Your task to perform on an android device: Go to settings Image 0: 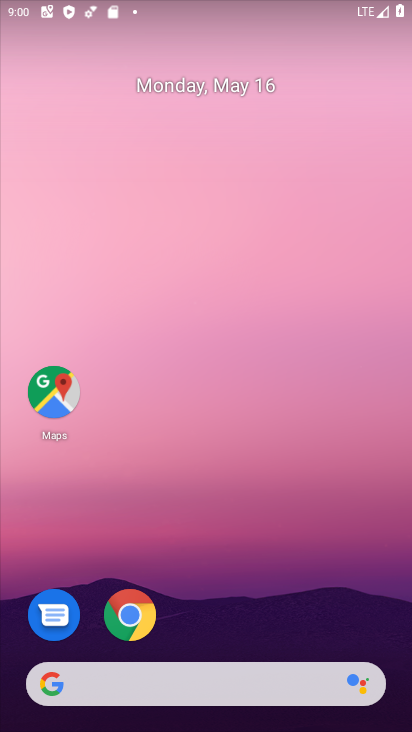
Step 0: drag from (232, 689) to (243, 224)
Your task to perform on an android device: Go to settings Image 1: 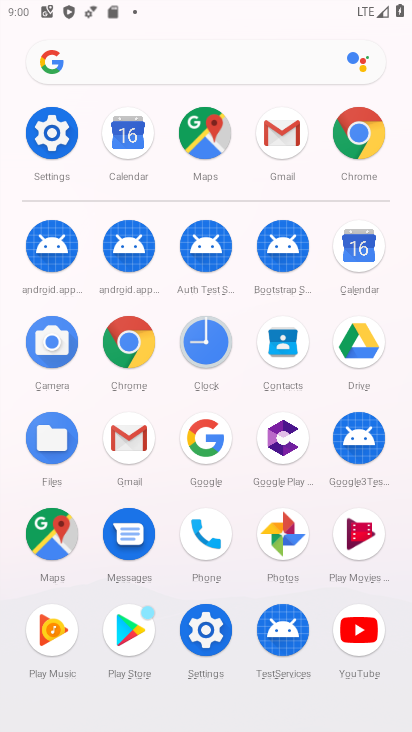
Step 1: click (49, 153)
Your task to perform on an android device: Go to settings Image 2: 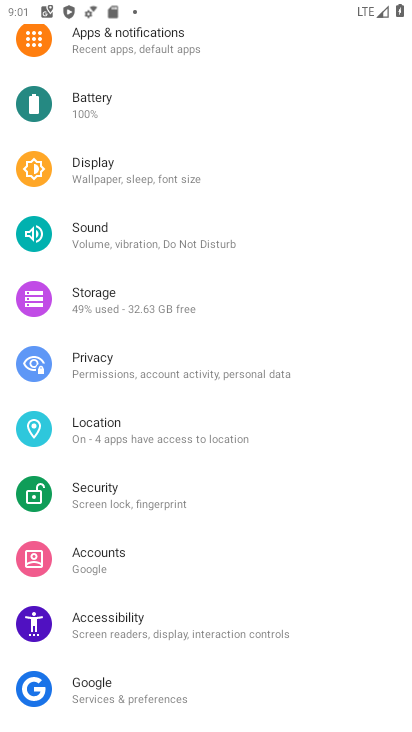
Step 2: task complete